Your task to perform on an android device: see sites visited before in the chrome app Image 0: 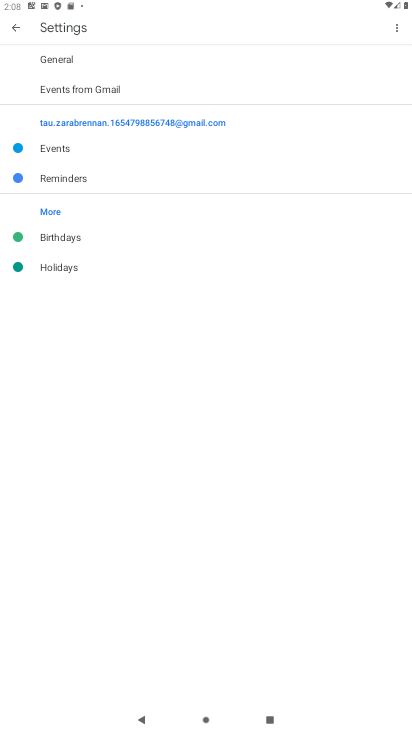
Step 0: press home button
Your task to perform on an android device: see sites visited before in the chrome app Image 1: 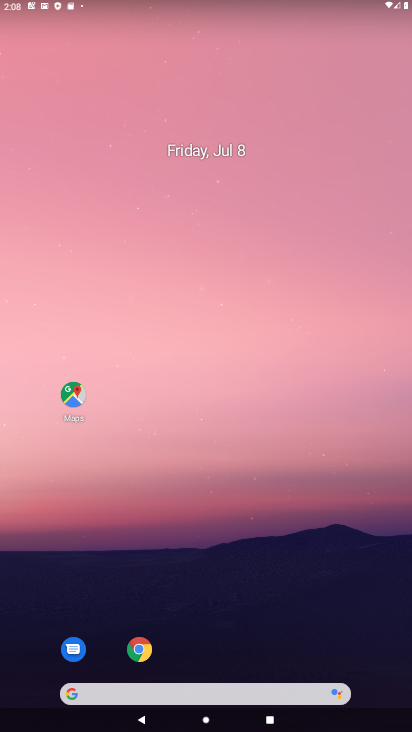
Step 1: click (137, 648)
Your task to perform on an android device: see sites visited before in the chrome app Image 2: 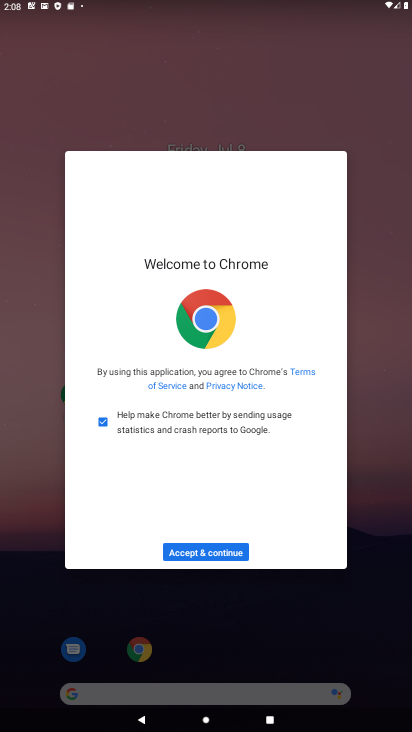
Step 2: click (204, 550)
Your task to perform on an android device: see sites visited before in the chrome app Image 3: 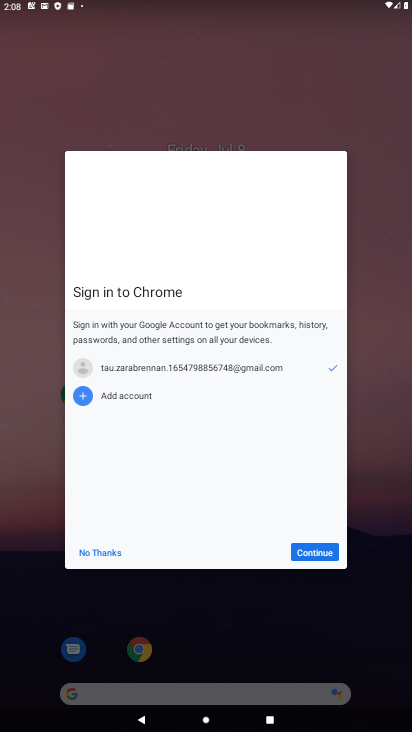
Step 3: click (317, 551)
Your task to perform on an android device: see sites visited before in the chrome app Image 4: 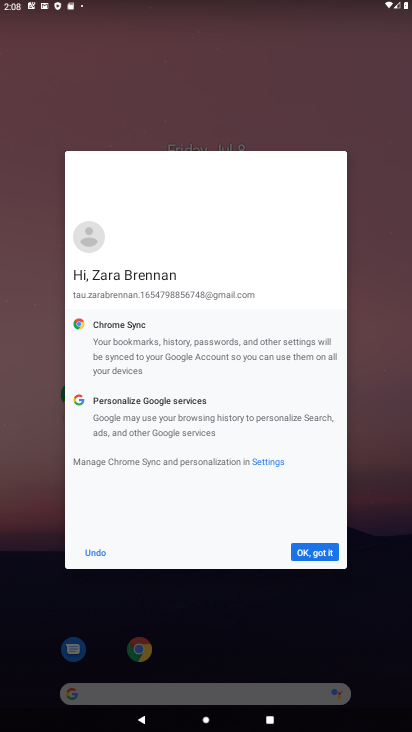
Step 4: click (313, 552)
Your task to perform on an android device: see sites visited before in the chrome app Image 5: 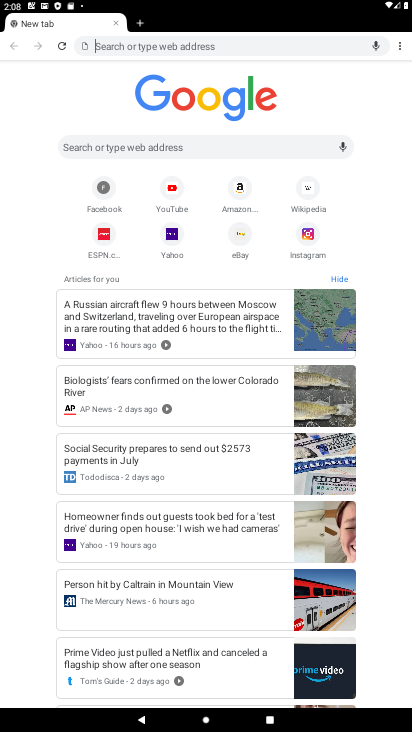
Step 5: click (399, 46)
Your task to perform on an android device: see sites visited before in the chrome app Image 6: 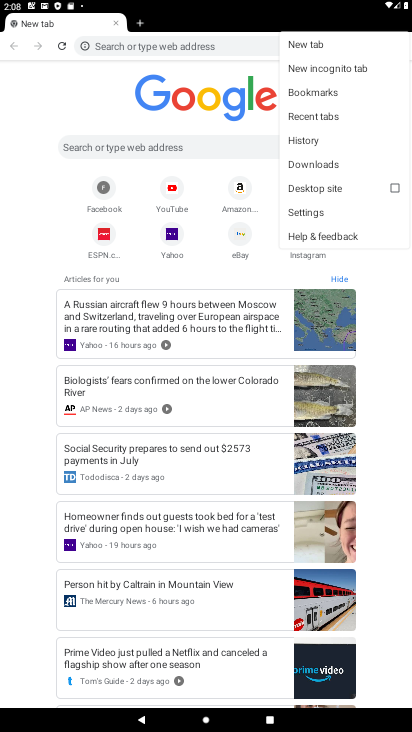
Step 6: click (300, 138)
Your task to perform on an android device: see sites visited before in the chrome app Image 7: 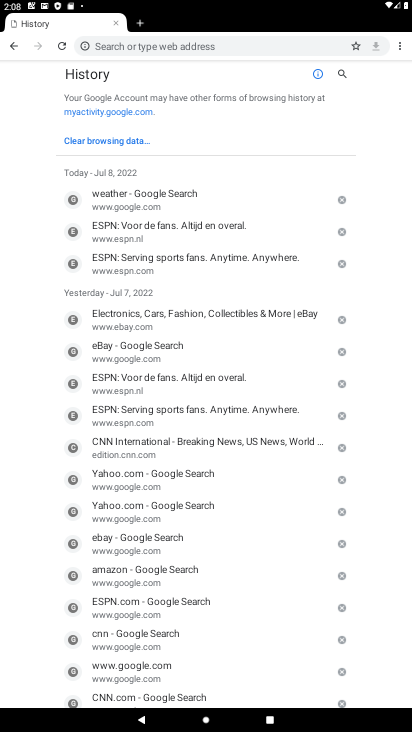
Step 7: task complete